Your task to perform on an android device: see sites visited before in the chrome app Image 0: 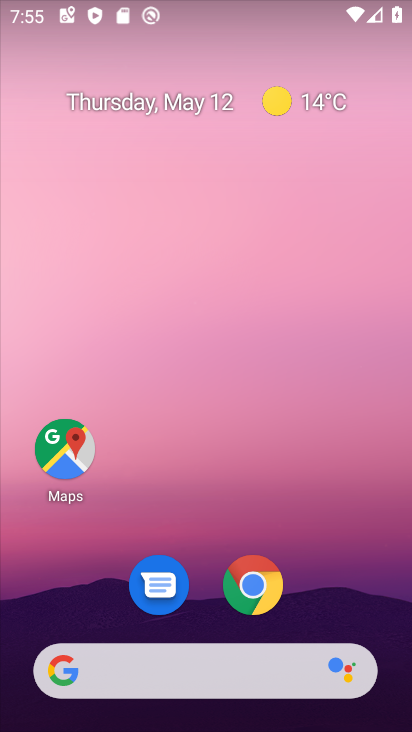
Step 0: click (289, 33)
Your task to perform on an android device: see sites visited before in the chrome app Image 1: 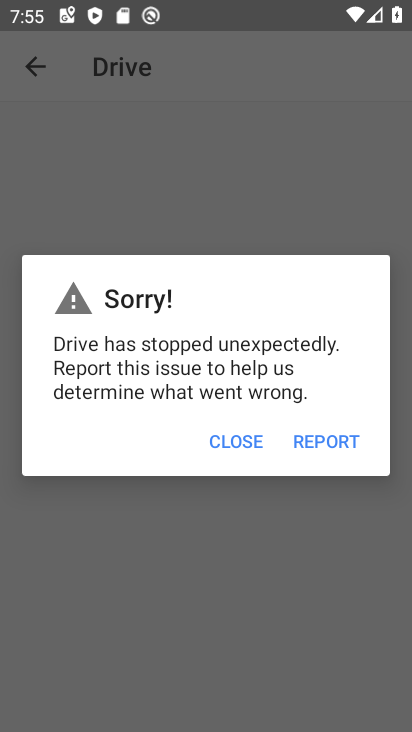
Step 1: press home button
Your task to perform on an android device: see sites visited before in the chrome app Image 2: 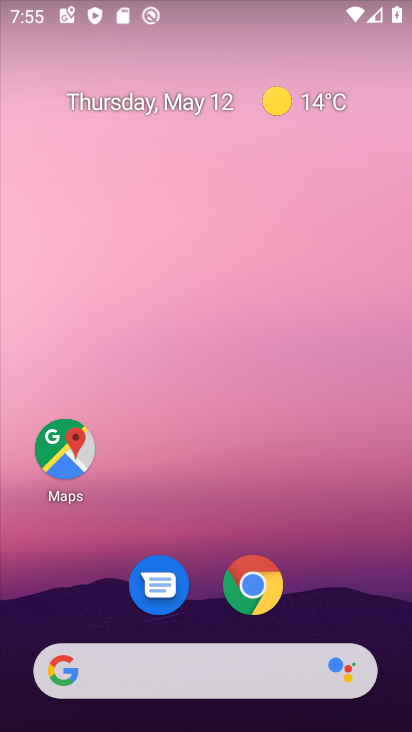
Step 2: click (255, 584)
Your task to perform on an android device: see sites visited before in the chrome app Image 3: 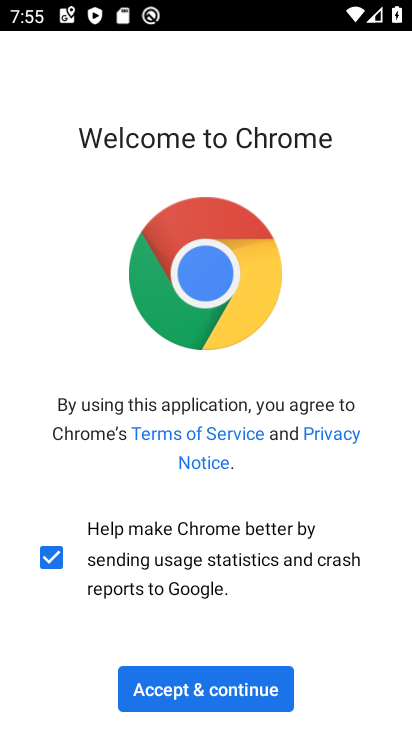
Step 3: click (262, 693)
Your task to perform on an android device: see sites visited before in the chrome app Image 4: 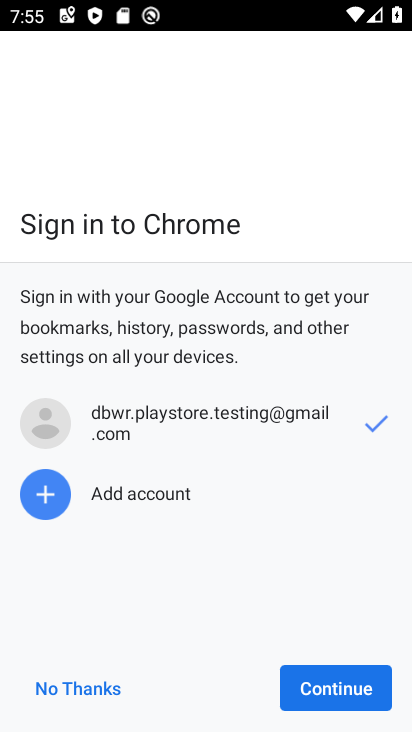
Step 4: click (322, 687)
Your task to perform on an android device: see sites visited before in the chrome app Image 5: 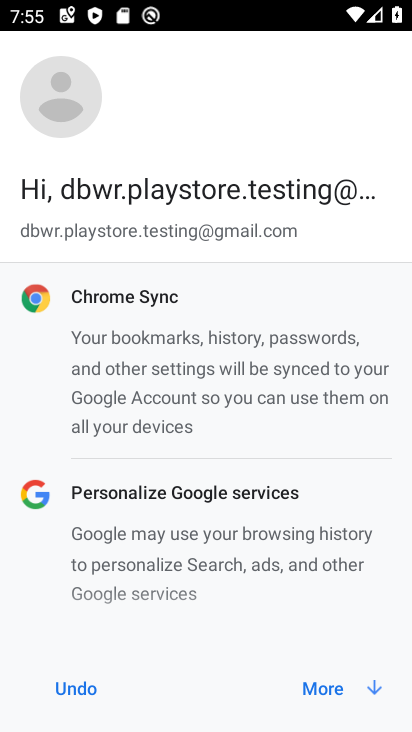
Step 5: click (337, 687)
Your task to perform on an android device: see sites visited before in the chrome app Image 6: 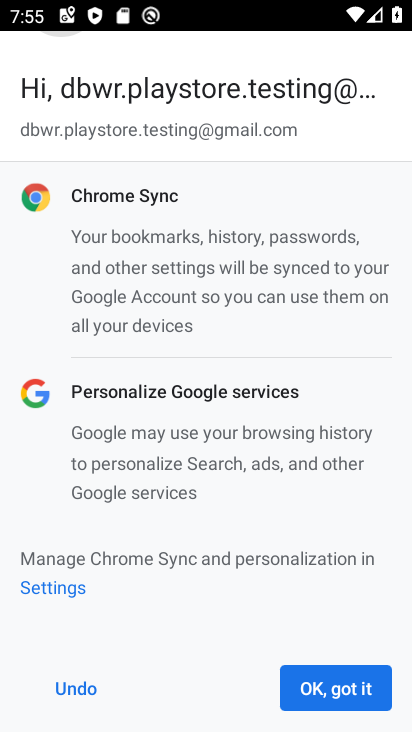
Step 6: click (341, 681)
Your task to perform on an android device: see sites visited before in the chrome app Image 7: 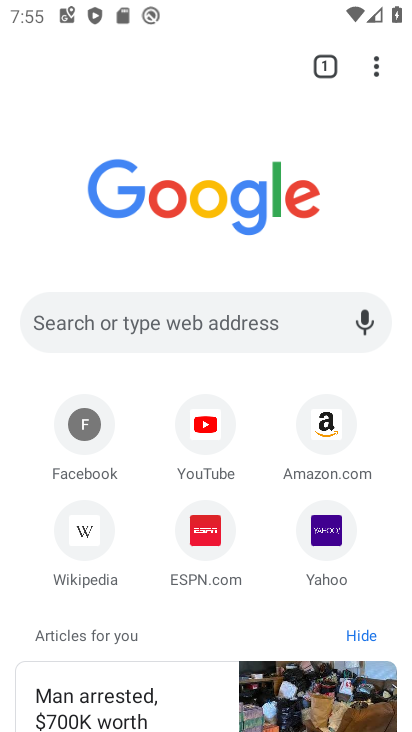
Step 7: click (370, 64)
Your task to perform on an android device: see sites visited before in the chrome app Image 8: 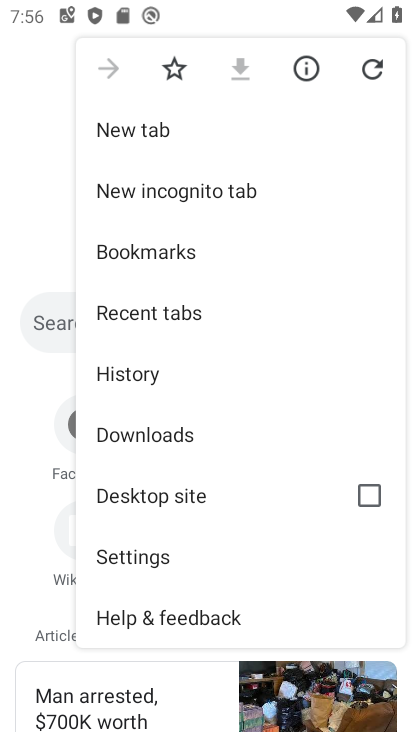
Step 8: click (187, 314)
Your task to perform on an android device: see sites visited before in the chrome app Image 9: 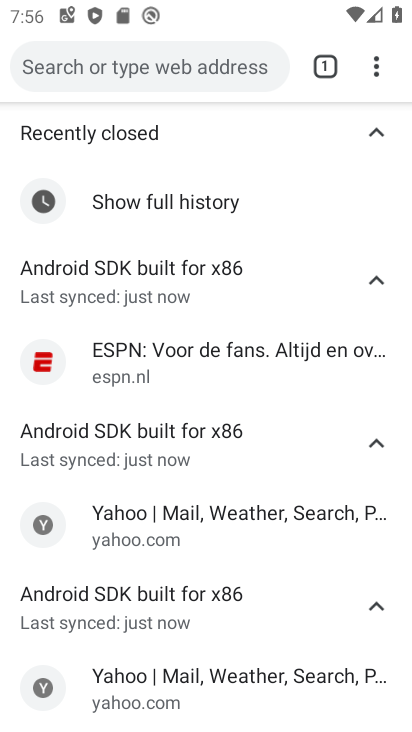
Step 9: task complete